Your task to perform on an android device: Go to network settings Image 0: 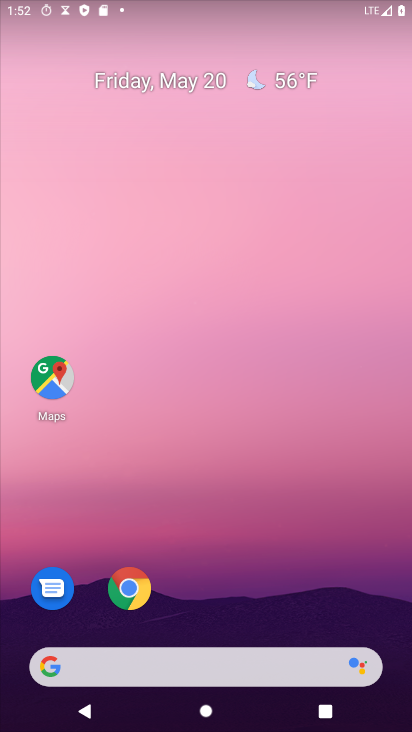
Step 0: drag from (44, 575) to (382, 142)
Your task to perform on an android device: Go to network settings Image 1: 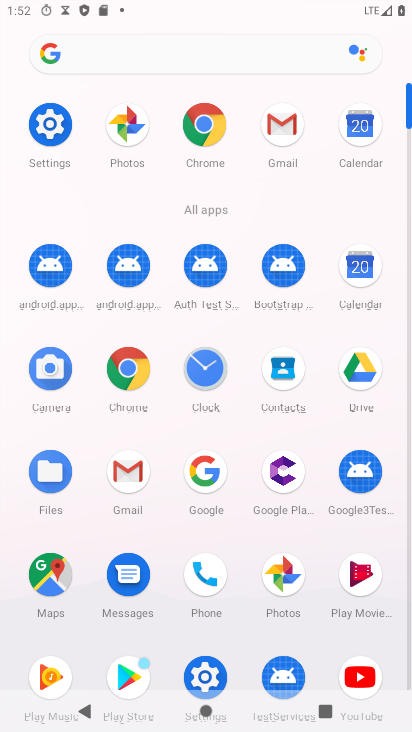
Step 1: click (40, 128)
Your task to perform on an android device: Go to network settings Image 2: 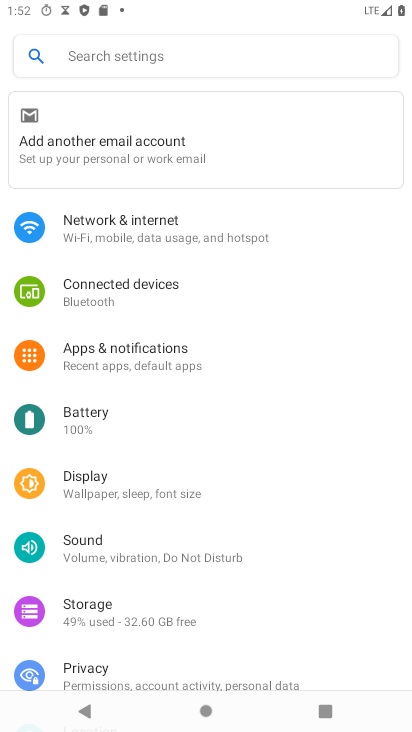
Step 2: click (126, 228)
Your task to perform on an android device: Go to network settings Image 3: 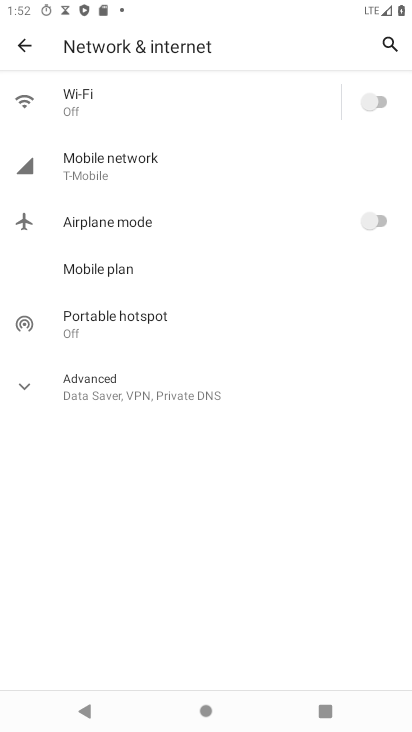
Step 3: click (166, 164)
Your task to perform on an android device: Go to network settings Image 4: 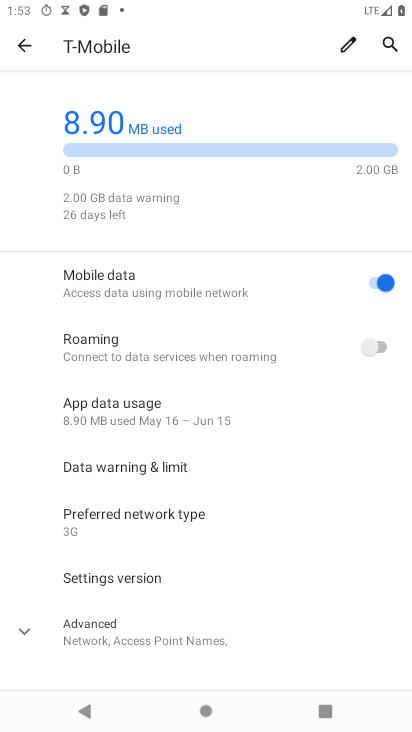
Step 4: task complete